Your task to perform on an android device: Open Yahoo.com Image 0: 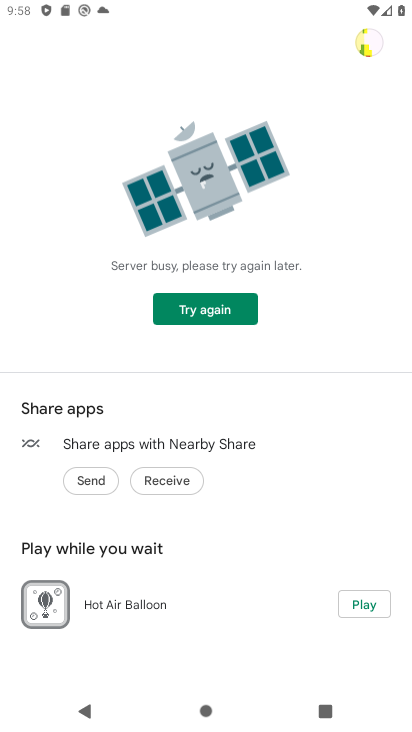
Step 0: press home button
Your task to perform on an android device: Open Yahoo.com Image 1: 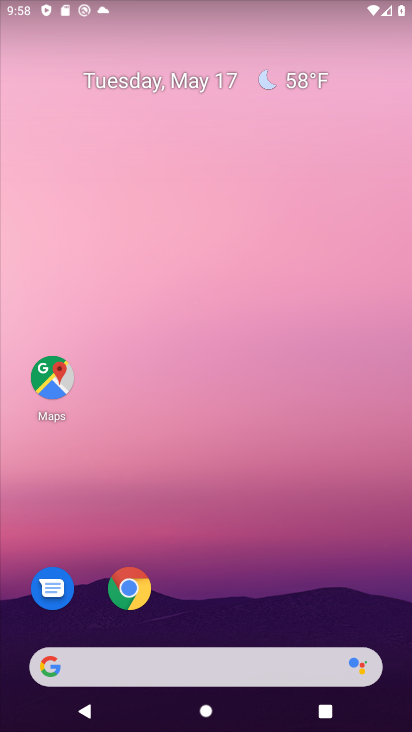
Step 1: click (131, 589)
Your task to perform on an android device: Open Yahoo.com Image 2: 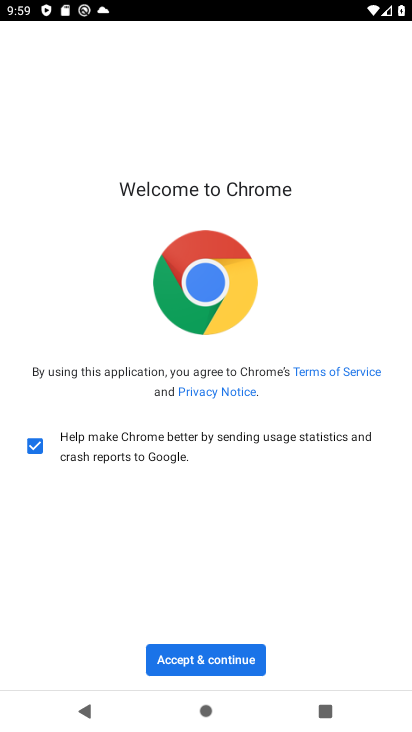
Step 2: click (208, 656)
Your task to perform on an android device: Open Yahoo.com Image 3: 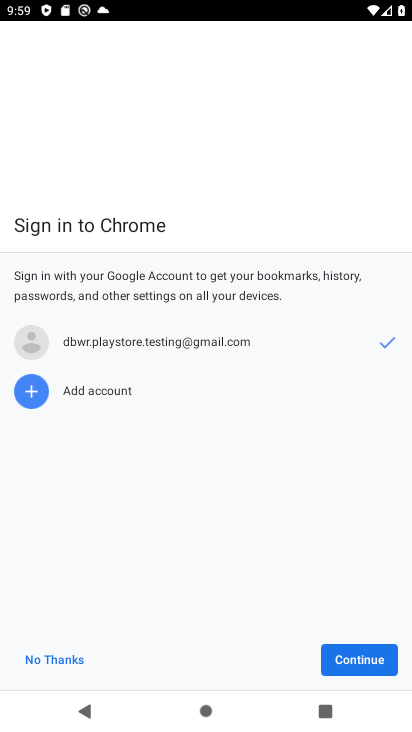
Step 3: click (354, 664)
Your task to perform on an android device: Open Yahoo.com Image 4: 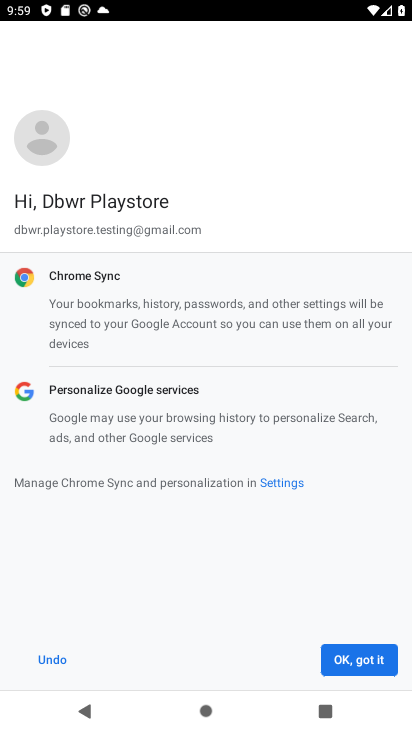
Step 4: click (354, 664)
Your task to perform on an android device: Open Yahoo.com Image 5: 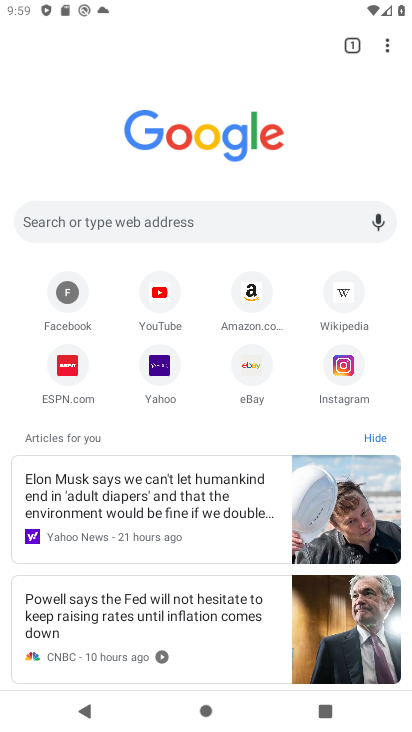
Step 5: click (168, 376)
Your task to perform on an android device: Open Yahoo.com Image 6: 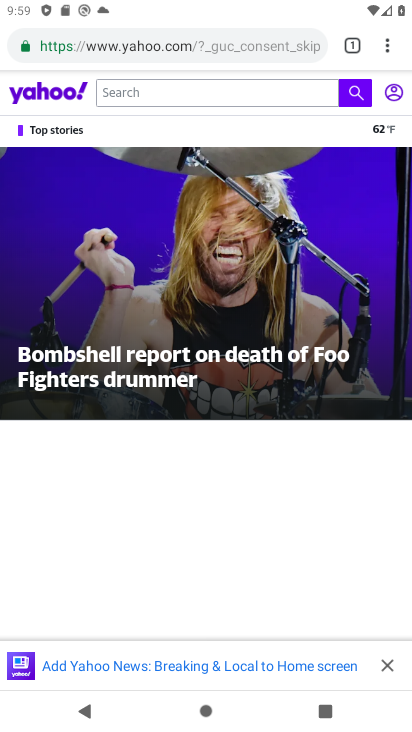
Step 6: task complete